Your task to perform on an android device: toggle wifi Image 0: 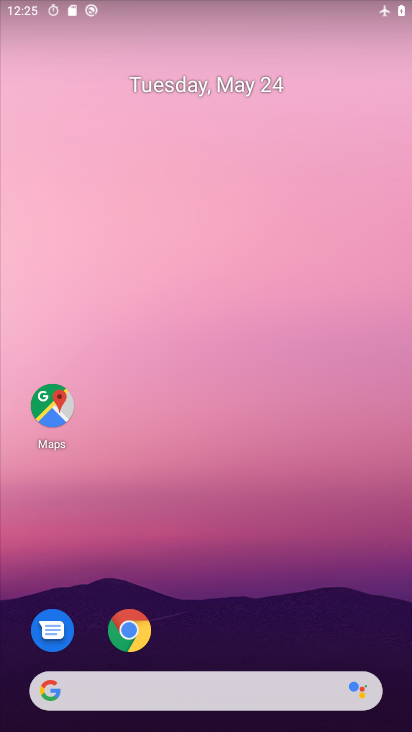
Step 0: drag from (207, 644) to (239, 123)
Your task to perform on an android device: toggle wifi Image 1: 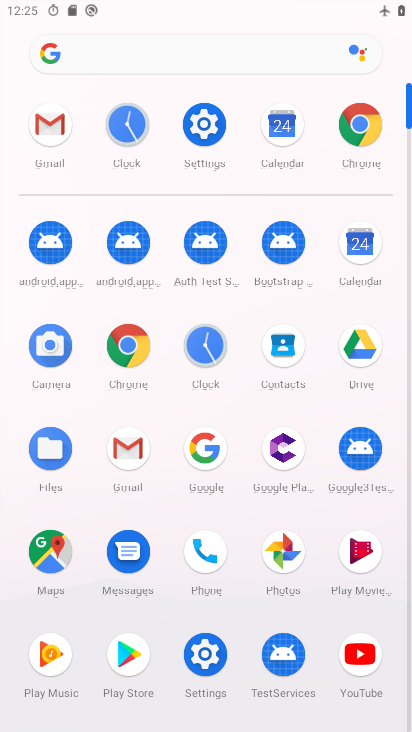
Step 1: click (210, 135)
Your task to perform on an android device: toggle wifi Image 2: 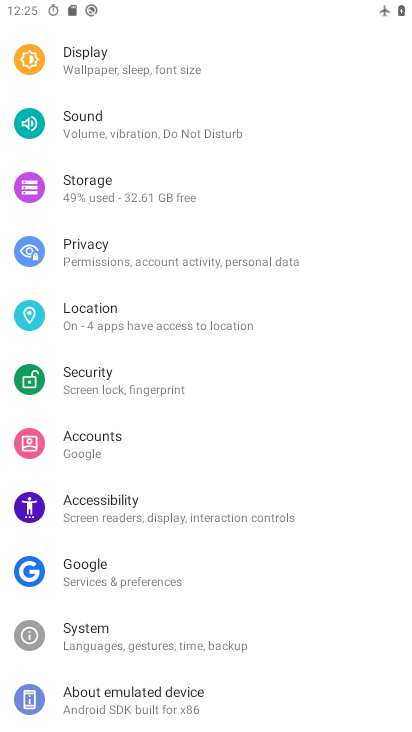
Step 2: drag from (177, 177) to (162, 530)
Your task to perform on an android device: toggle wifi Image 3: 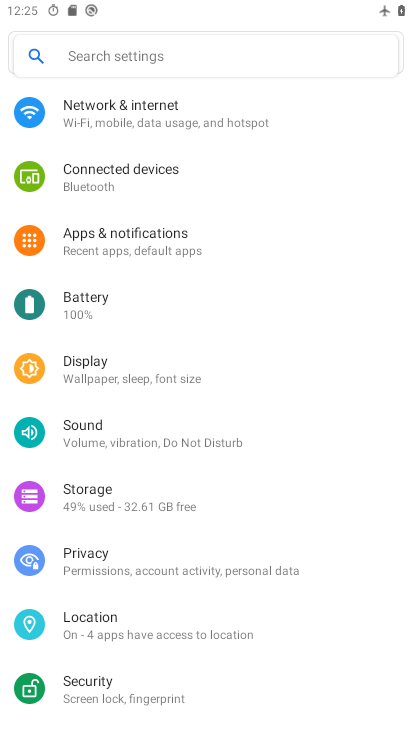
Step 3: drag from (194, 160) to (196, 400)
Your task to perform on an android device: toggle wifi Image 4: 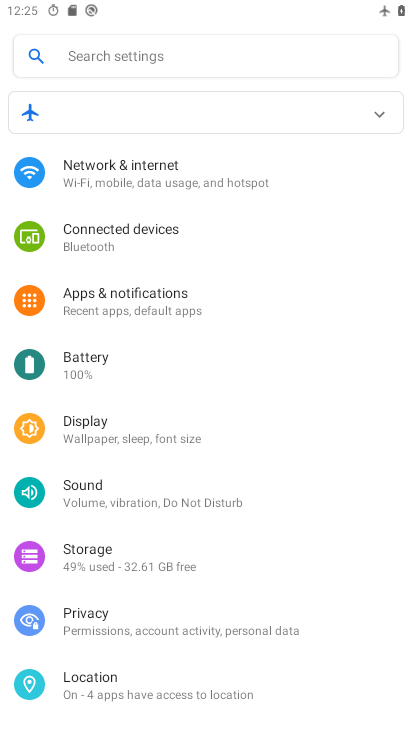
Step 4: click (180, 181)
Your task to perform on an android device: toggle wifi Image 5: 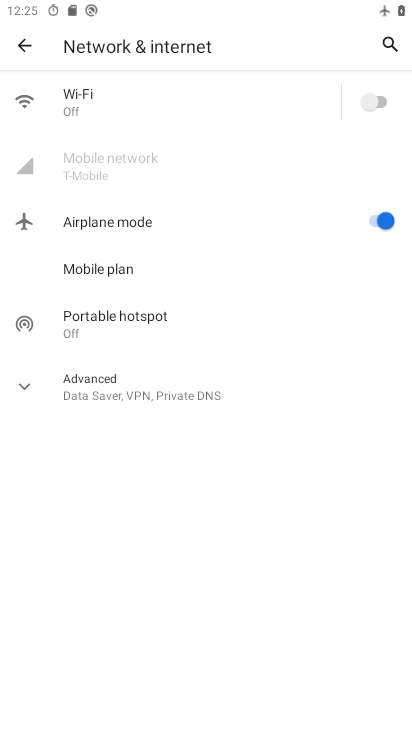
Step 5: click (380, 102)
Your task to perform on an android device: toggle wifi Image 6: 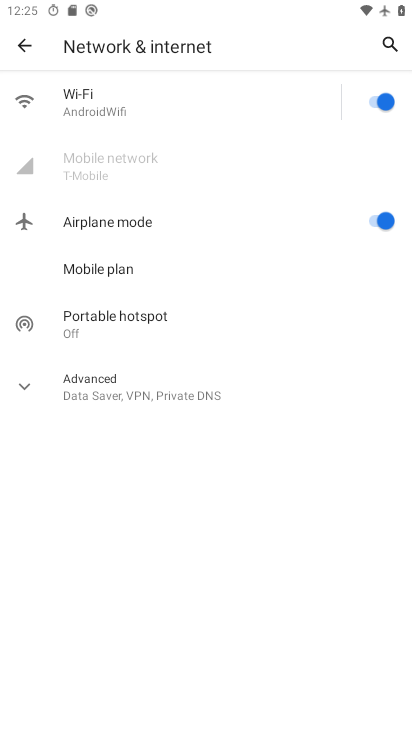
Step 6: task complete